Your task to perform on an android device: turn off priority inbox in the gmail app Image 0: 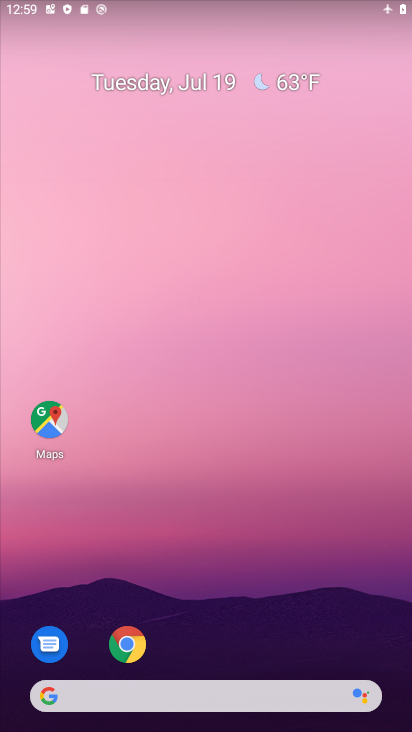
Step 0: drag from (236, 611) to (227, 137)
Your task to perform on an android device: turn off priority inbox in the gmail app Image 1: 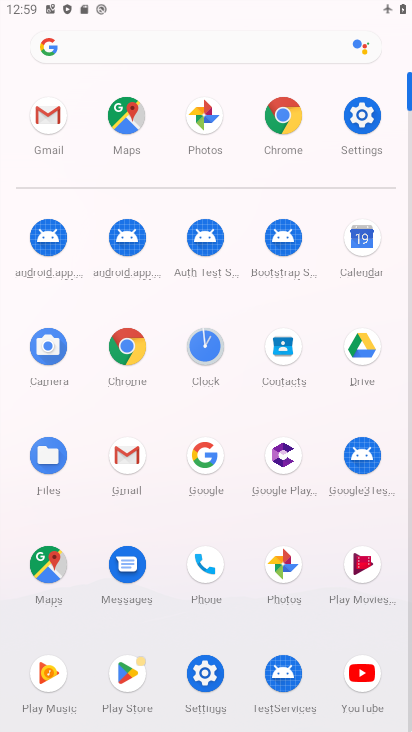
Step 1: click (127, 451)
Your task to perform on an android device: turn off priority inbox in the gmail app Image 2: 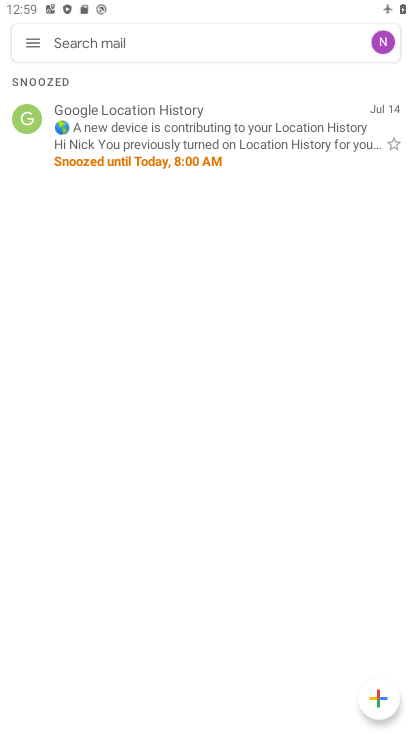
Step 2: click (32, 43)
Your task to perform on an android device: turn off priority inbox in the gmail app Image 3: 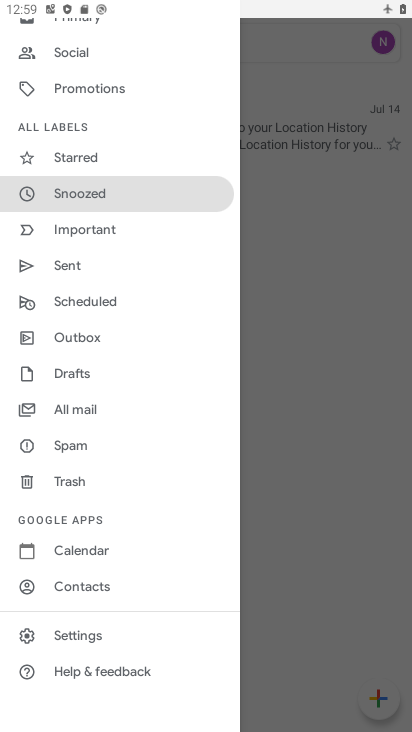
Step 3: click (83, 630)
Your task to perform on an android device: turn off priority inbox in the gmail app Image 4: 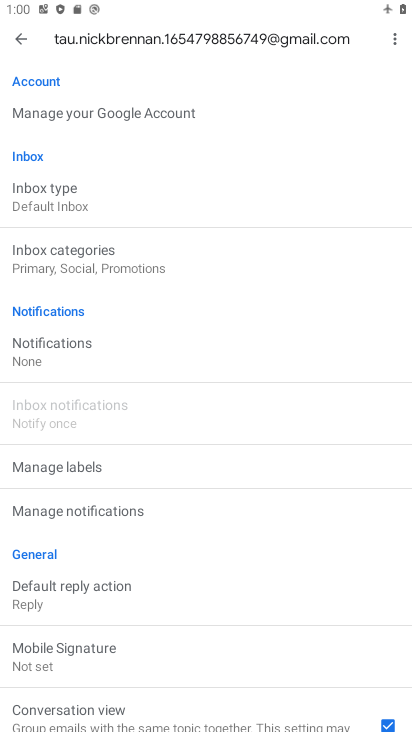
Step 4: task complete